Your task to perform on an android device: Open calendar and show me the third week of next month Image 0: 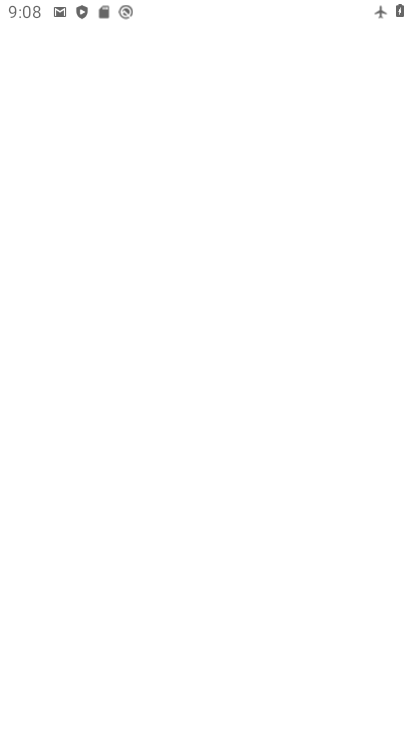
Step 0: press home button
Your task to perform on an android device: Open calendar and show me the third week of next month Image 1: 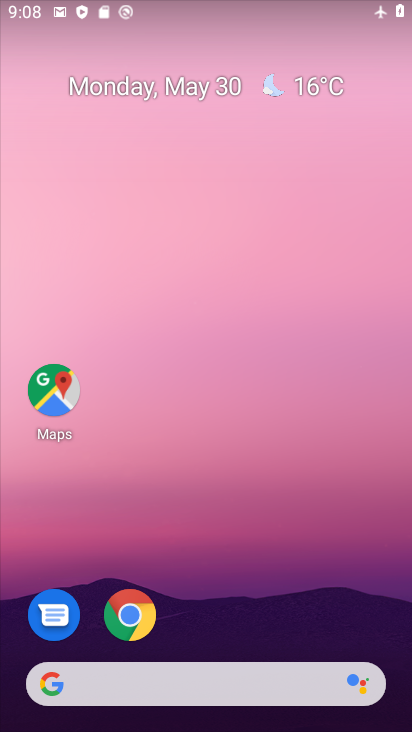
Step 1: drag from (235, 517) to (286, 32)
Your task to perform on an android device: Open calendar and show me the third week of next month Image 2: 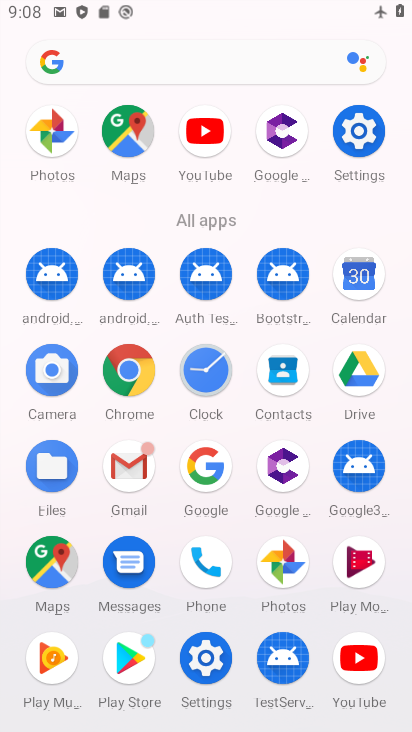
Step 2: click (361, 277)
Your task to perform on an android device: Open calendar and show me the third week of next month Image 3: 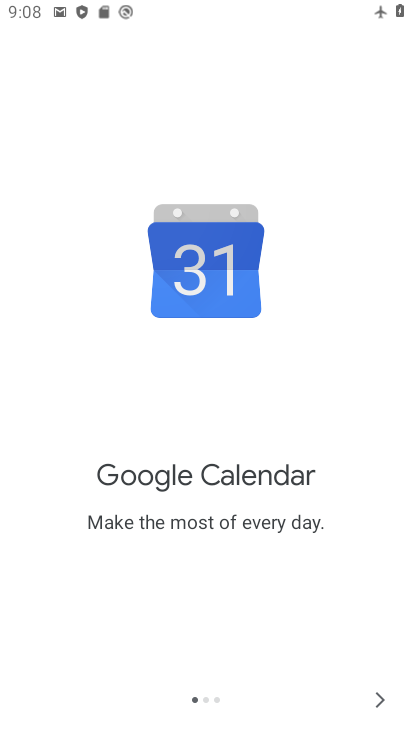
Step 3: click (374, 703)
Your task to perform on an android device: Open calendar and show me the third week of next month Image 4: 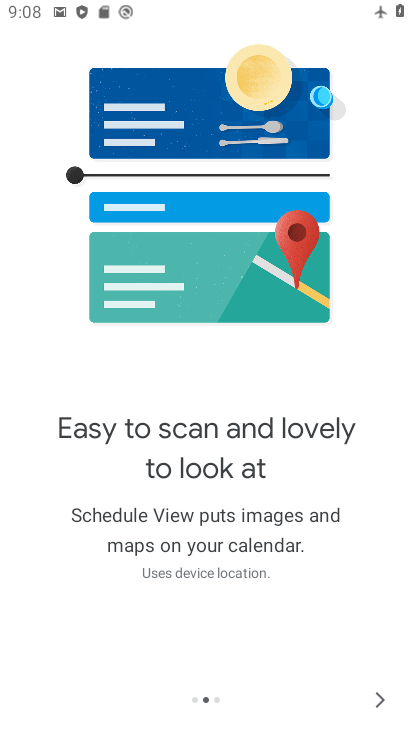
Step 4: click (381, 697)
Your task to perform on an android device: Open calendar and show me the third week of next month Image 5: 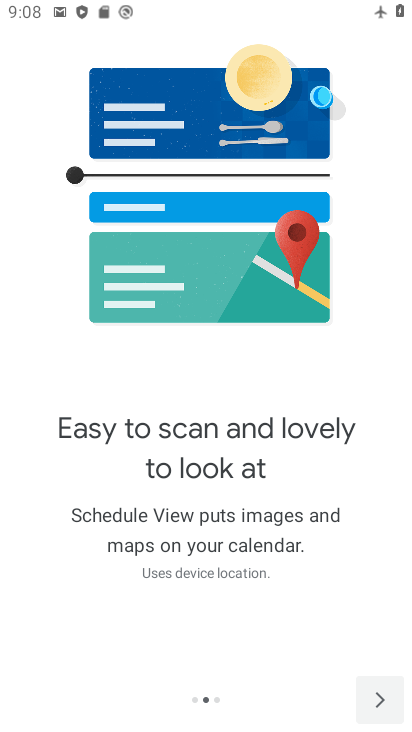
Step 5: click (381, 697)
Your task to perform on an android device: Open calendar and show me the third week of next month Image 6: 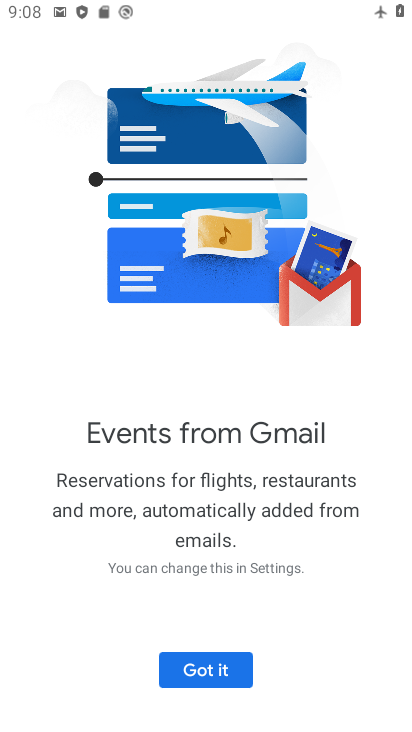
Step 6: click (218, 676)
Your task to perform on an android device: Open calendar and show me the third week of next month Image 7: 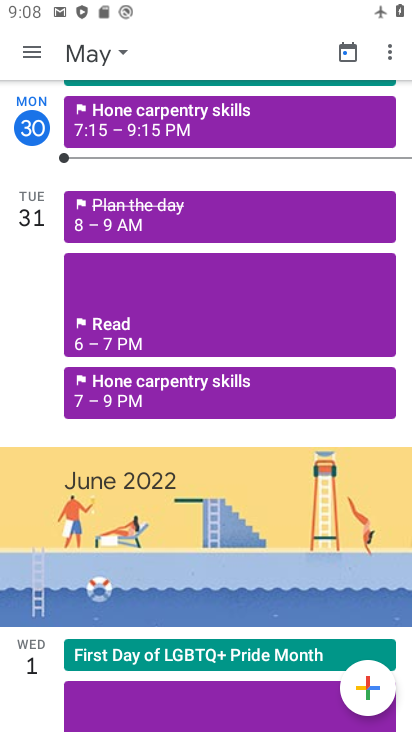
Step 7: click (102, 55)
Your task to perform on an android device: Open calendar and show me the third week of next month Image 8: 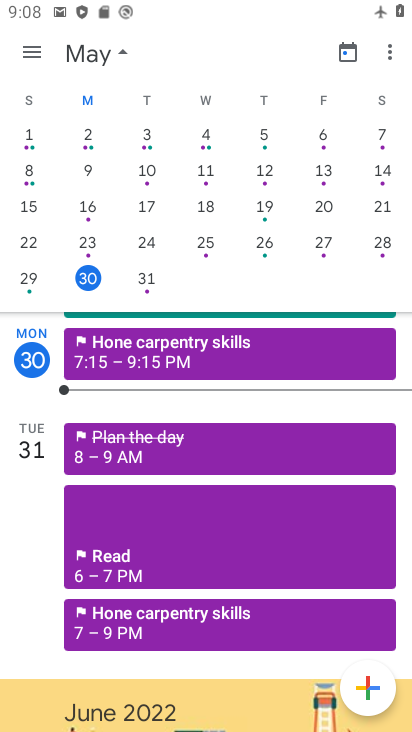
Step 8: drag from (381, 209) to (0, 155)
Your task to perform on an android device: Open calendar and show me the third week of next month Image 9: 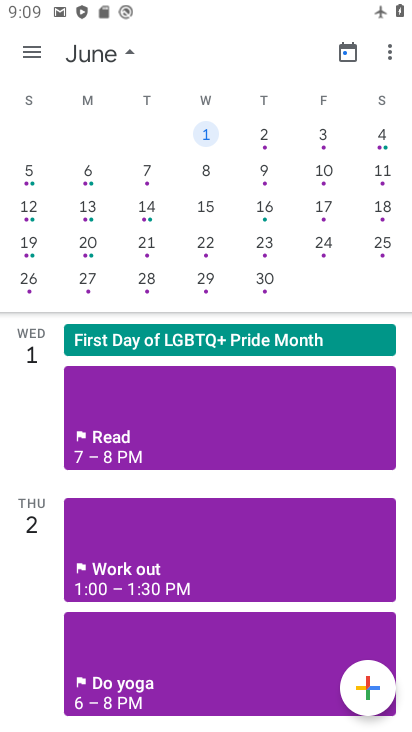
Step 9: click (85, 205)
Your task to perform on an android device: Open calendar and show me the third week of next month Image 10: 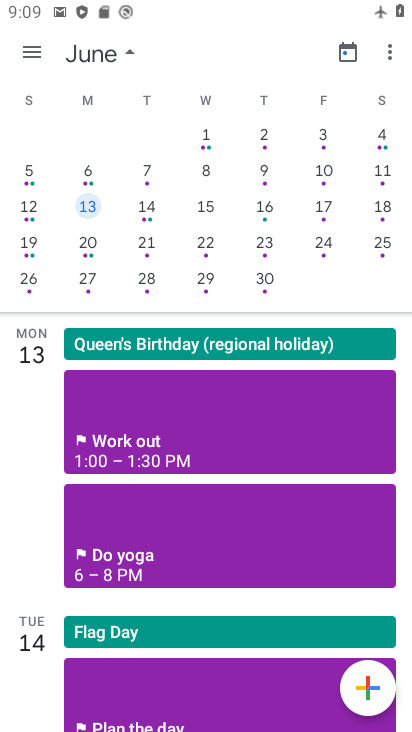
Step 10: click (89, 204)
Your task to perform on an android device: Open calendar and show me the third week of next month Image 11: 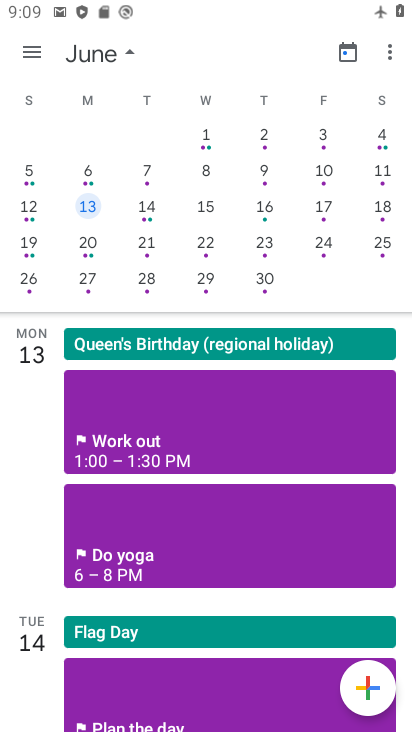
Step 11: task complete